Your task to perform on an android device: toggle airplane mode Image 0: 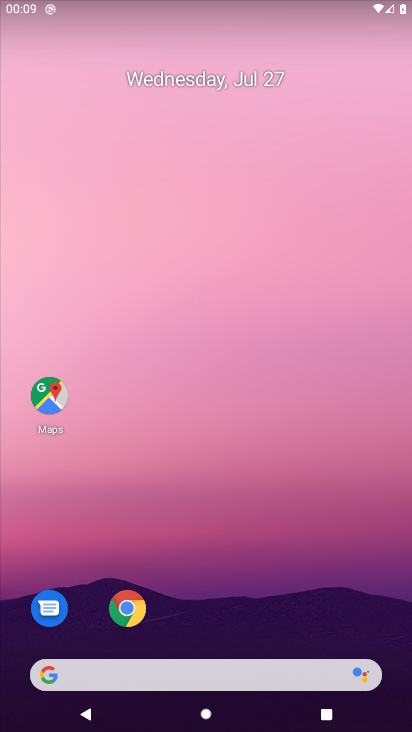
Step 0: press home button
Your task to perform on an android device: toggle airplane mode Image 1: 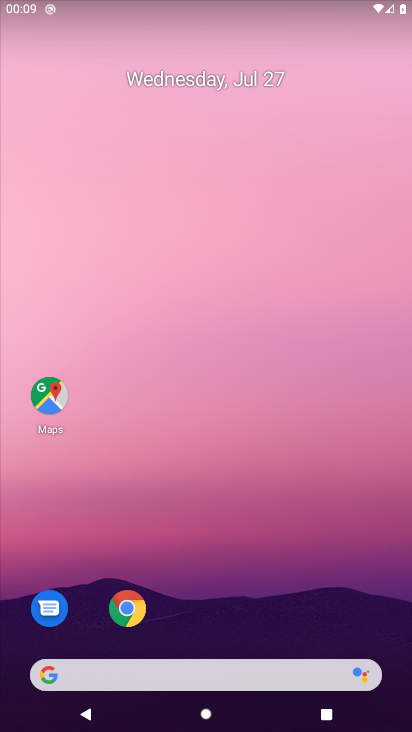
Step 1: drag from (309, 3) to (343, 306)
Your task to perform on an android device: toggle airplane mode Image 2: 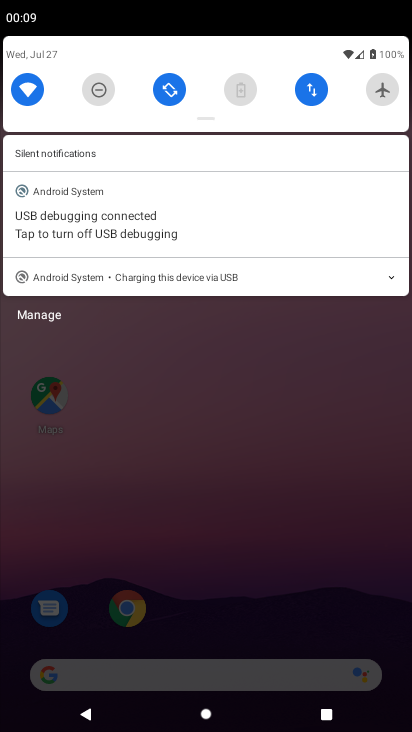
Step 2: click (386, 75)
Your task to perform on an android device: toggle airplane mode Image 3: 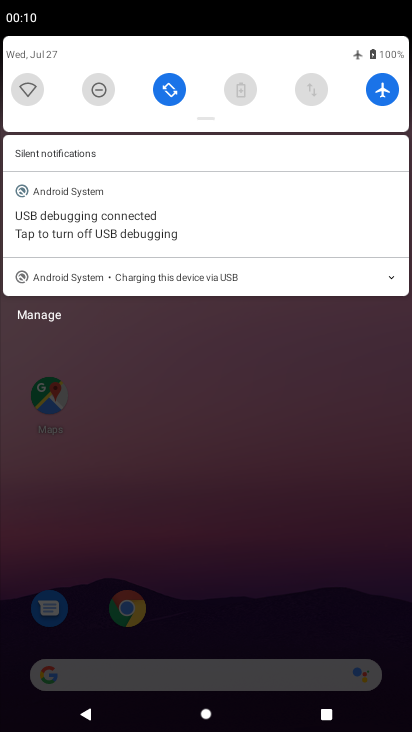
Step 3: task complete